Your task to perform on an android device: turn on location history Image 0: 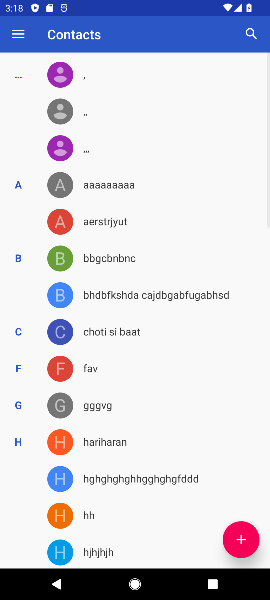
Step 0: press home button
Your task to perform on an android device: turn on location history Image 1: 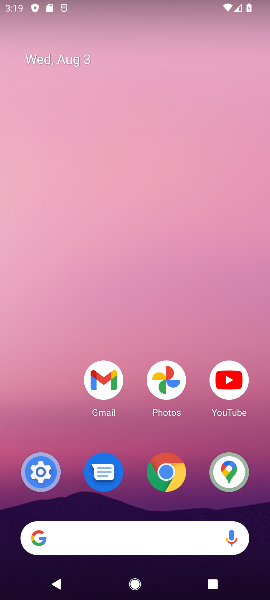
Step 1: drag from (199, 499) to (82, 46)
Your task to perform on an android device: turn on location history Image 2: 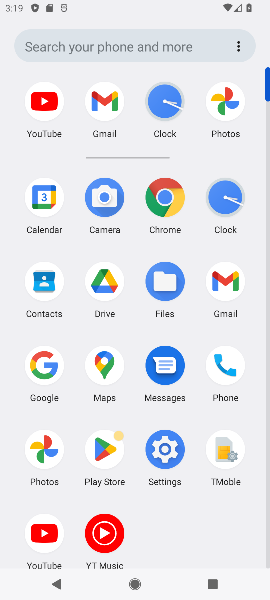
Step 2: click (169, 431)
Your task to perform on an android device: turn on location history Image 3: 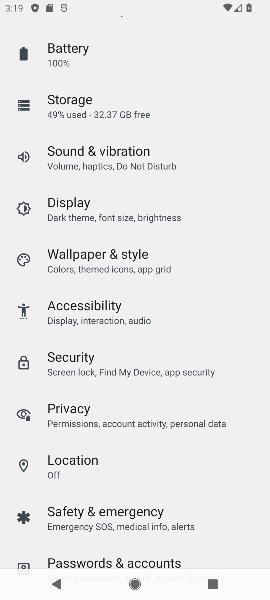
Step 3: click (106, 465)
Your task to perform on an android device: turn on location history Image 4: 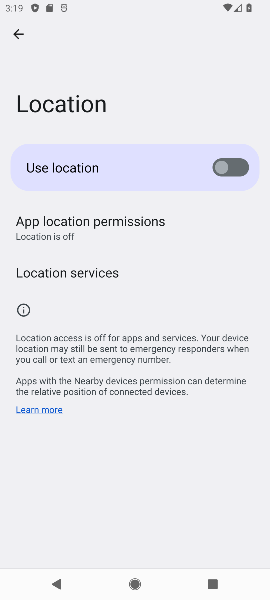
Step 4: click (49, 272)
Your task to perform on an android device: turn on location history Image 5: 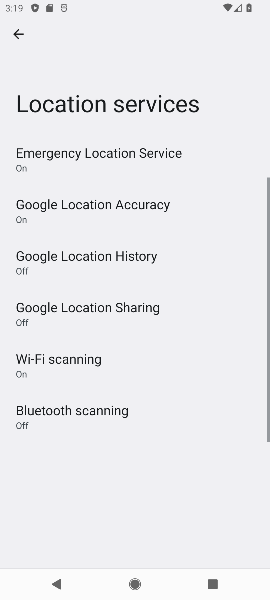
Step 5: click (49, 272)
Your task to perform on an android device: turn on location history Image 6: 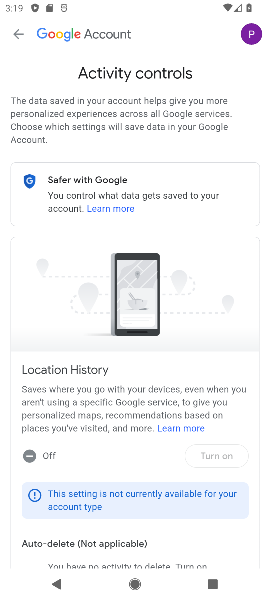
Step 6: click (227, 456)
Your task to perform on an android device: turn on location history Image 7: 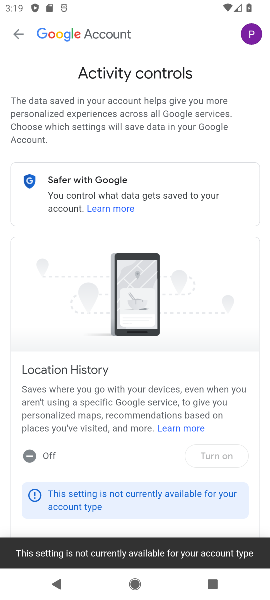
Step 7: task complete